Your task to perform on an android device: Search for pizza restaurants on Maps Image 0: 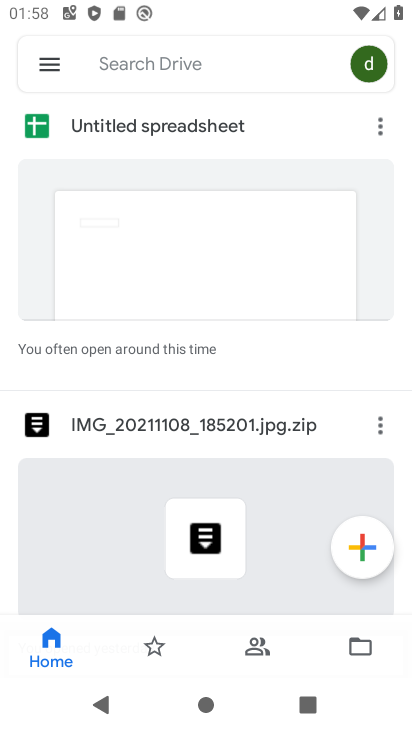
Step 0: drag from (167, 599) to (230, 210)
Your task to perform on an android device: Search for pizza restaurants on Maps Image 1: 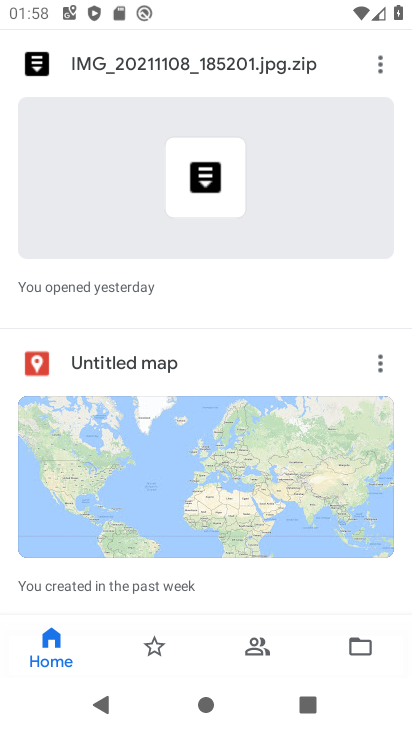
Step 1: drag from (216, 596) to (272, 215)
Your task to perform on an android device: Search for pizza restaurants on Maps Image 2: 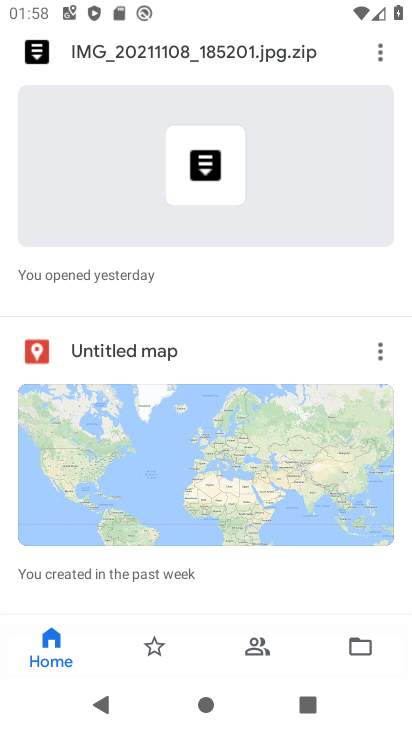
Step 2: drag from (297, 162) to (212, 602)
Your task to perform on an android device: Search for pizza restaurants on Maps Image 3: 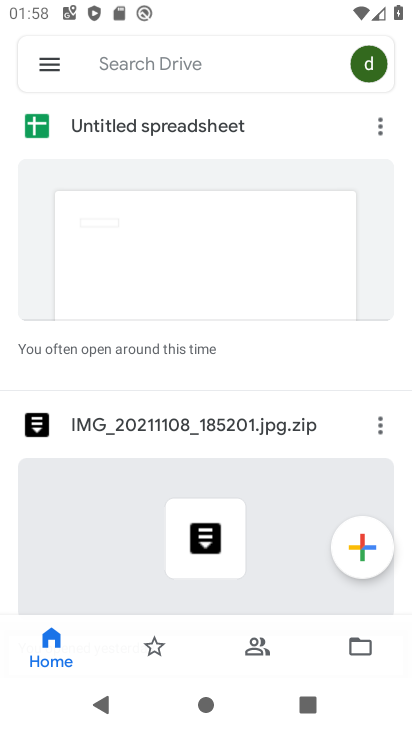
Step 3: click (204, 70)
Your task to perform on an android device: Search for pizza restaurants on Maps Image 4: 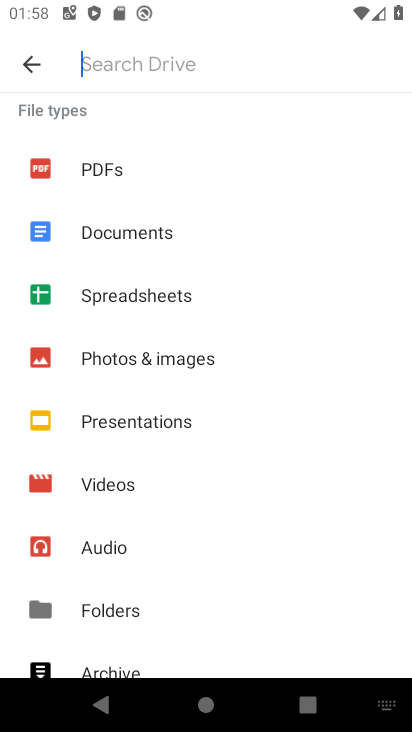
Step 4: press home button
Your task to perform on an android device: Search for pizza restaurants on Maps Image 5: 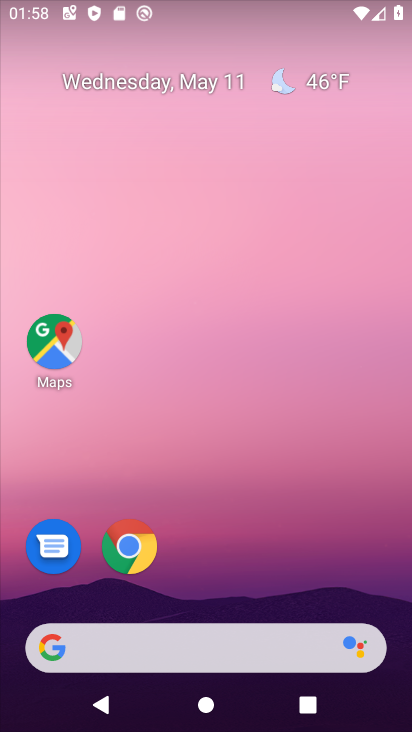
Step 5: drag from (185, 576) to (307, 141)
Your task to perform on an android device: Search for pizza restaurants on Maps Image 6: 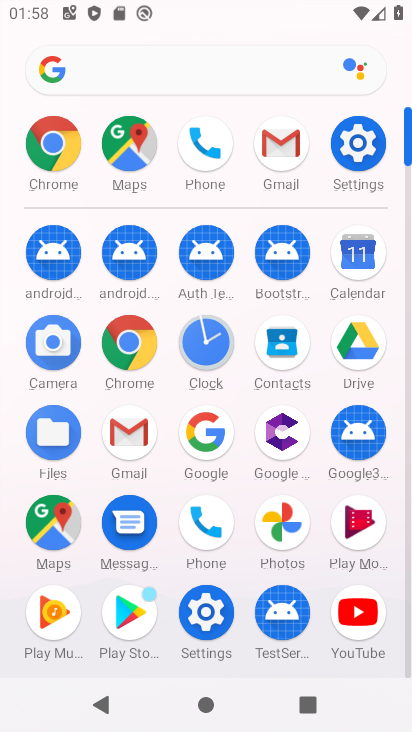
Step 6: click (51, 524)
Your task to perform on an android device: Search for pizza restaurants on Maps Image 7: 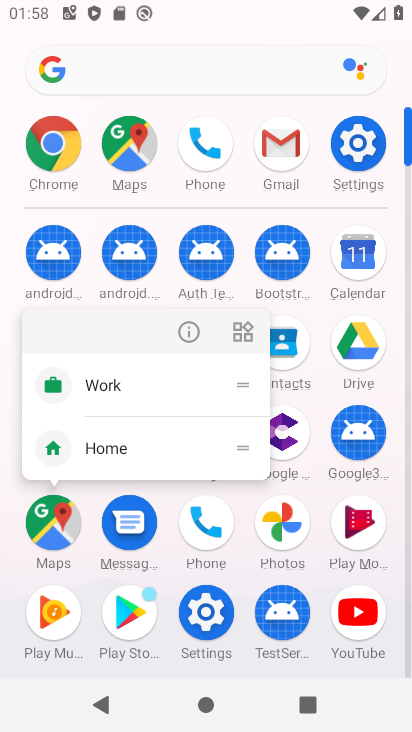
Step 7: click (193, 336)
Your task to perform on an android device: Search for pizza restaurants on Maps Image 8: 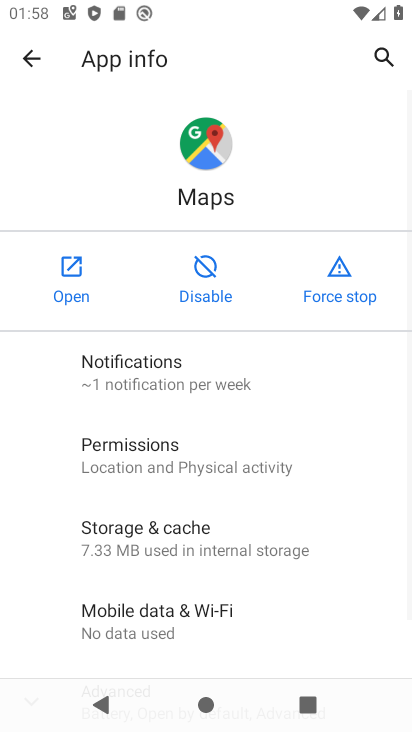
Step 8: click (74, 264)
Your task to perform on an android device: Search for pizza restaurants on Maps Image 9: 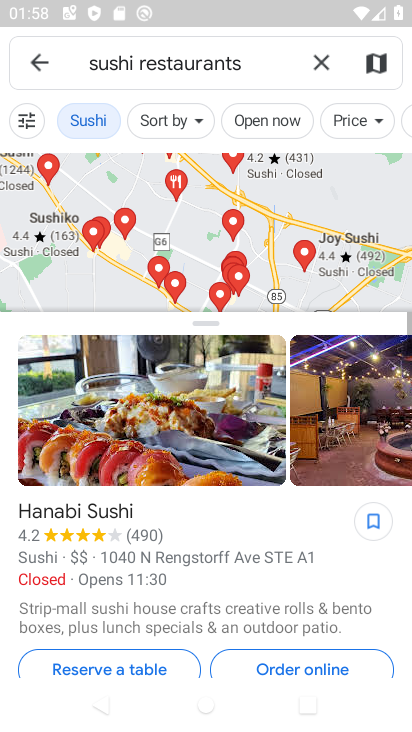
Step 9: drag from (221, 552) to (356, 151)
Your task to perform on an android device: Search for pizza restaurants on Maps Image 10: 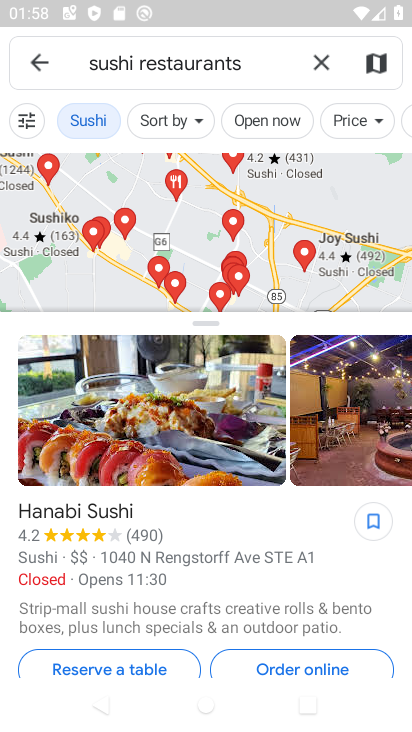
Step 10: drag from (209, 546) to (309, 156)
Your task to perform on an android device: Search for pizza restaurants on Maps Image 11: 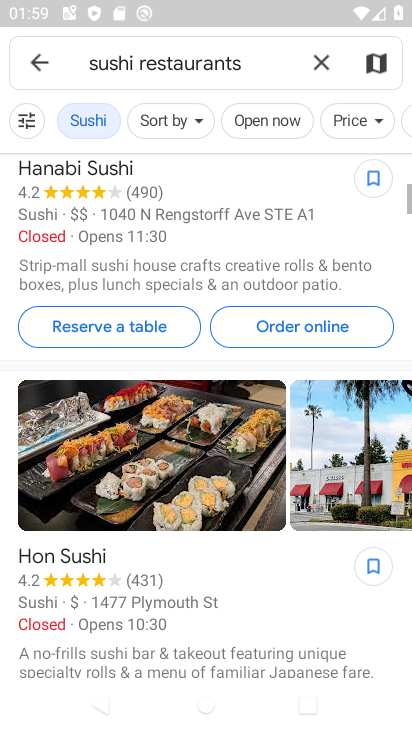
Step 11: click (318, 72)
Your task to perform on an android device: Search for pizza restaurants on Maps Image 12: 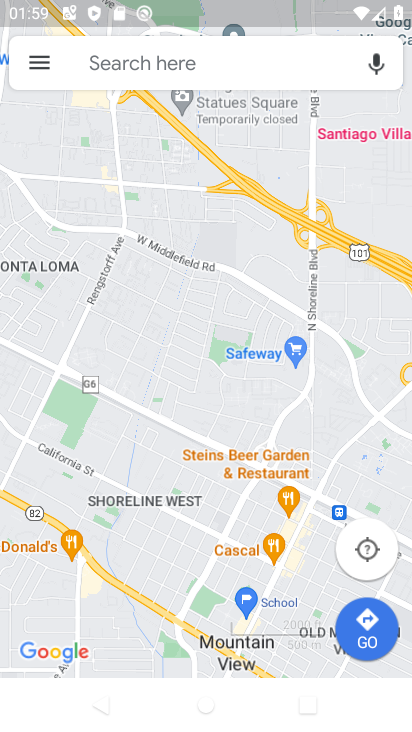
Step 12: click (227, 66)
Your task to perform on an android device: Search for pizza restaurants on Maps Image 13: 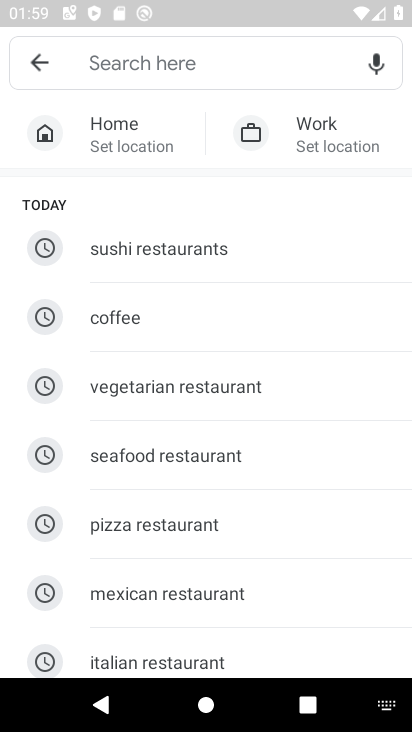
Step 13: drag from (175, 583) to (245, 188)
Your task to perform on an android device: Search for pizza restaurants on Maps Image 14: 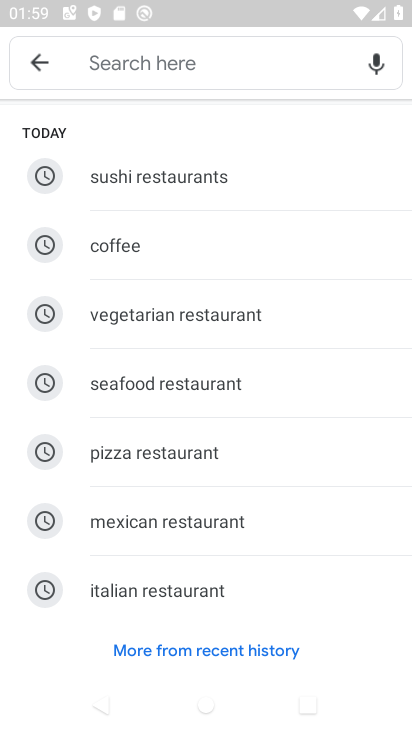
Step 14: click (159, 461)
Your task to perform on an android device: Search for pizza restaurants on Maps Image 15: 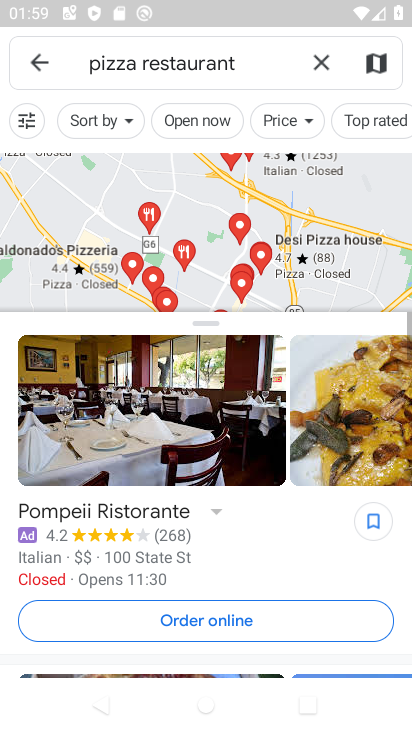
Step 15: task complete